Your task to perform on an android device: turn on improve location accuracy Image 0: 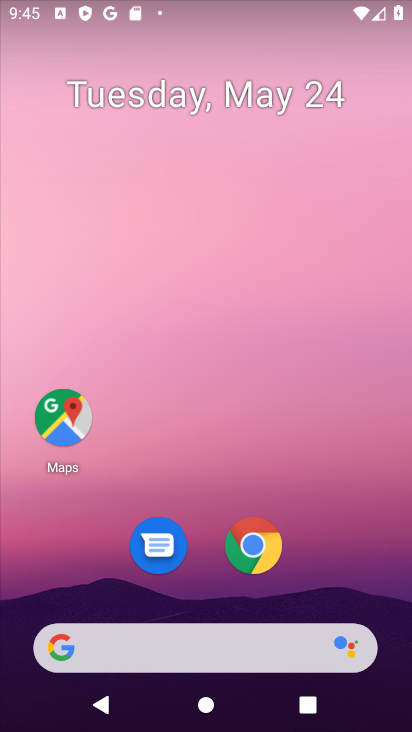
Step 0: drag from (213, 508) to (254, 48)
Your task to perform on an android device: turn on improve location accuracy Image 1: 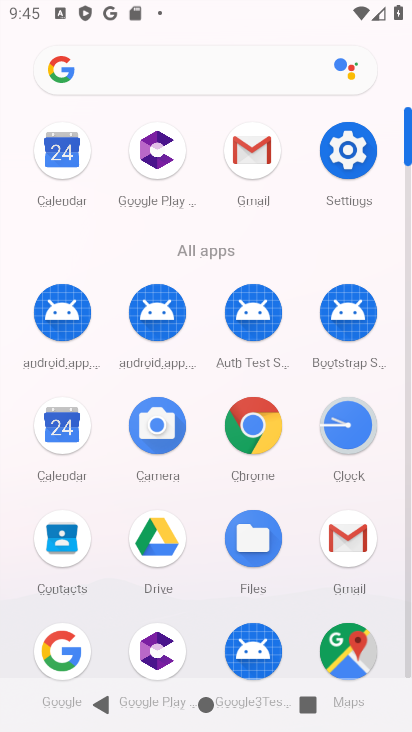
Step 1: click (344, 157)
Your task to perform on an android device: turn on improve location accuracy Image 2: 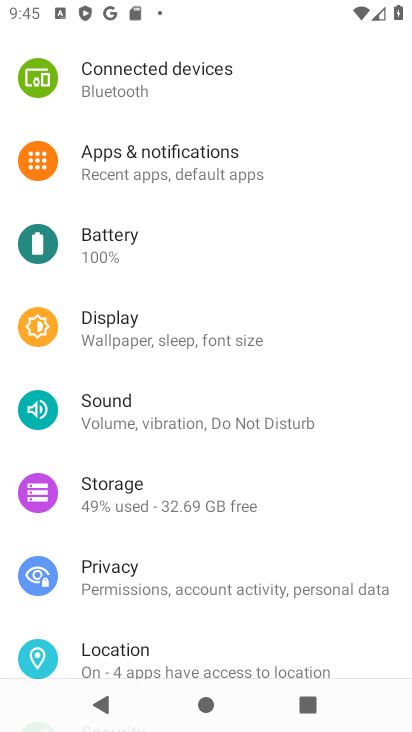
Step 2: click (193, 650)
Your task to perform on an android device: turn on improve location accuracy Image 3: 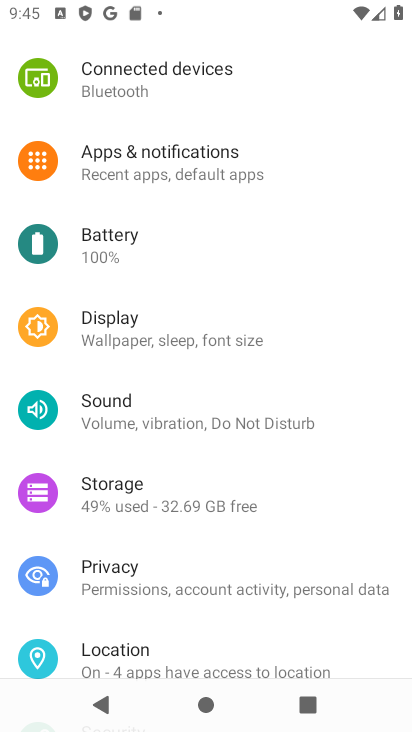
Step 3: click (211, 661)
Your task to perform on an android device: turn on improve location accuracy Image 4: 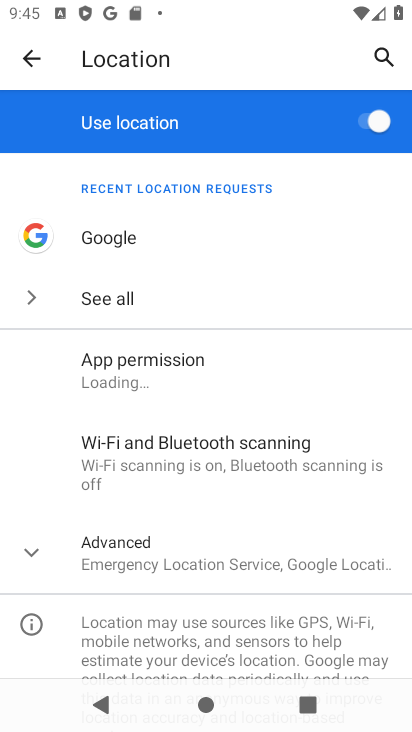
Step 4: click (34, 547)
Your task to perform on an android device: turn on improve location accuracy Image 5: 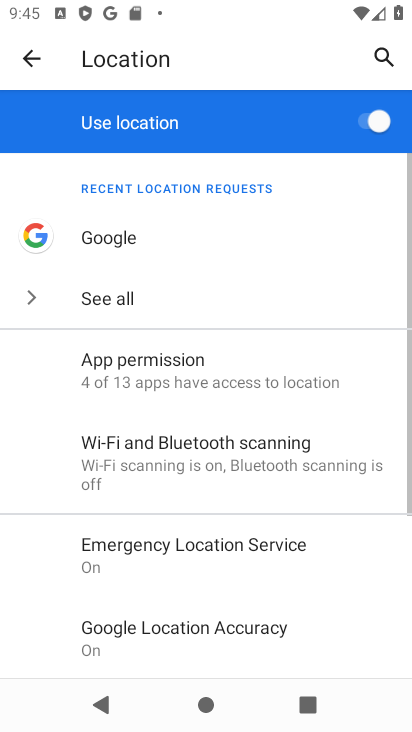
Step 5: drag from (210, 580) to (207, 319)
Your task to perform on an android device: turn on improve location accuracy Image 6: 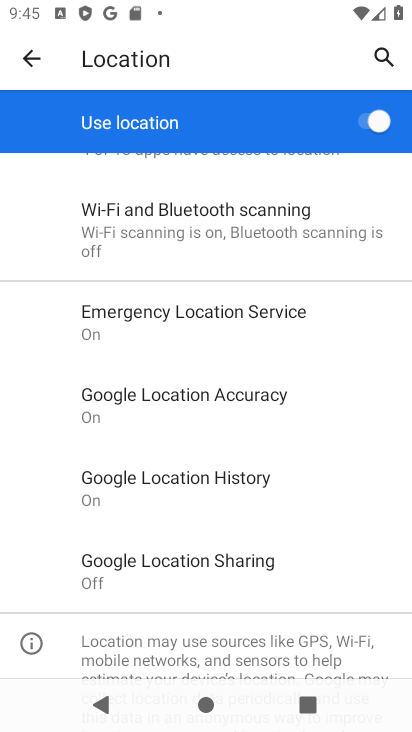
Step 6: click (220, 404)
Your task to perform on an android device: turn on improve location accuracy Image 7: 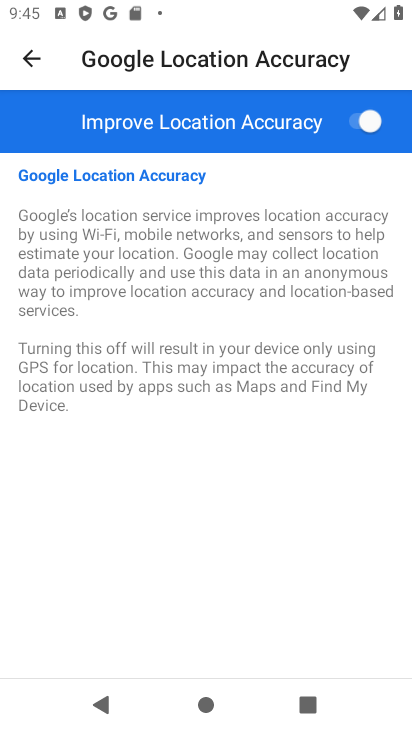
Step 7: task complete